Your task to perform on an android device: Open settings on Google Maps Image 0: 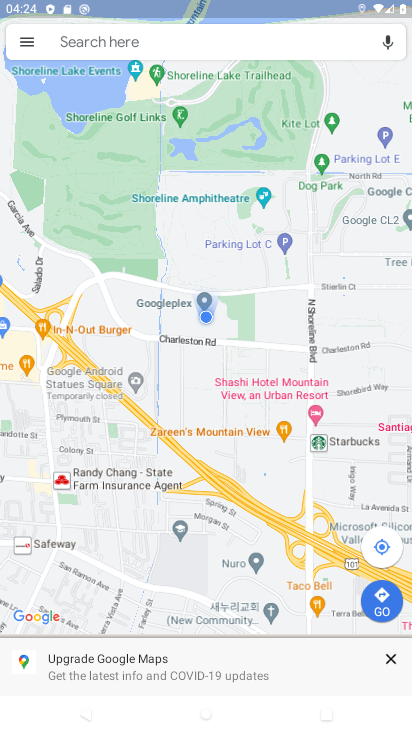
Step 0: press back button
Your task to perform on an android device: Open settings on Google Maps Image 1: 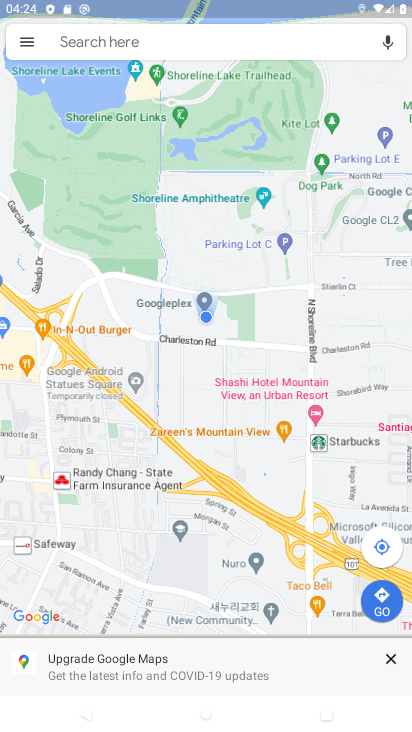
Step 1: press home button
Your task to perform on an android device: Open settings on Google Maps Image 2: 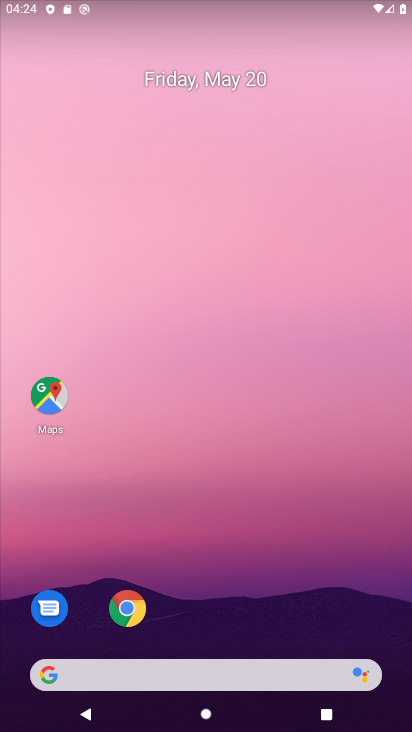
Step 2: drag from (209, 669) to (167, 79)
Your task to perform on an android device: Open settings on Google Maps Image 3: 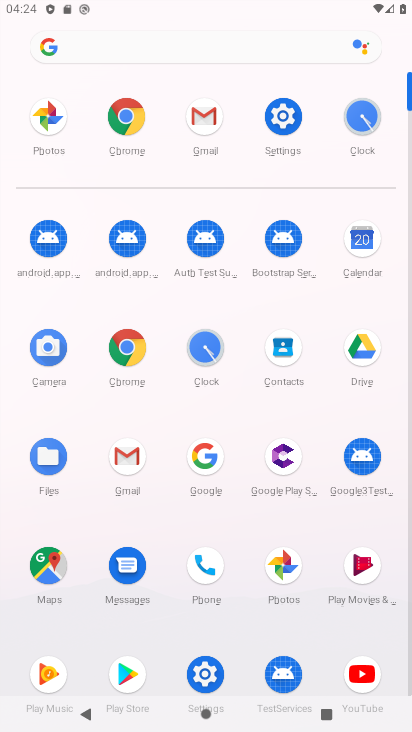
Step 3: click (41, 577)
Your task to perform on an android device: Open settings on Google Maps Image 4: 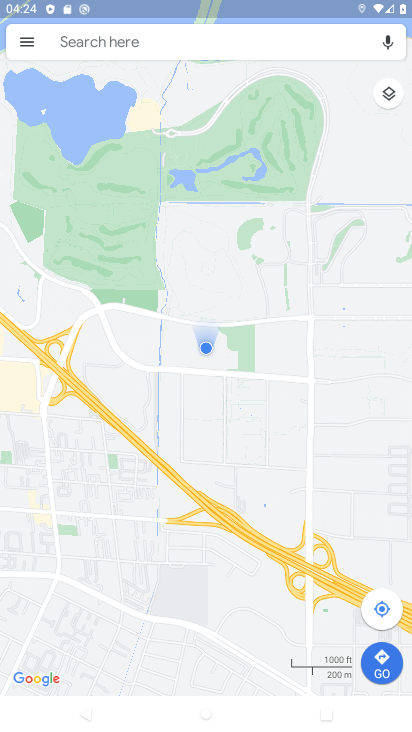
Step 4: drag from (21, 31) to (41, 197)
Your task to perform on an android device: Open settings on Google Maps Image 5: 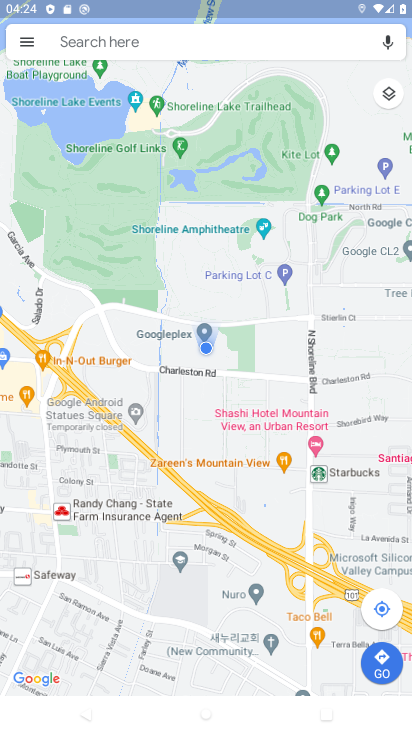
Step 5: click (16, 47)
Your task to perform on an android device: Open settings on Google Maps Image 6: 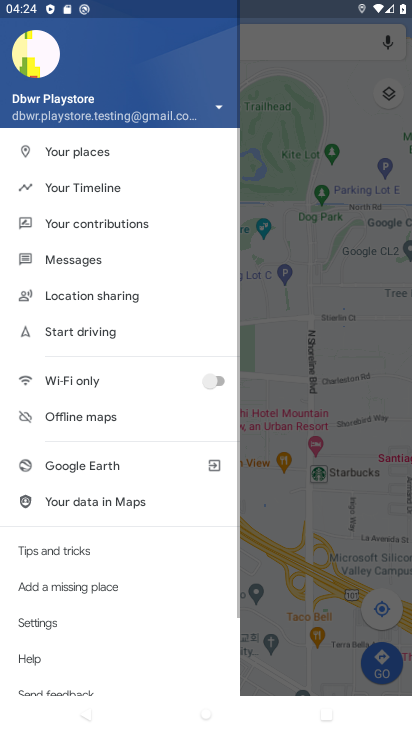
Step 6: click (50, 628)
Your task to perform on an android device: Open settings on Google Maps Image 7: 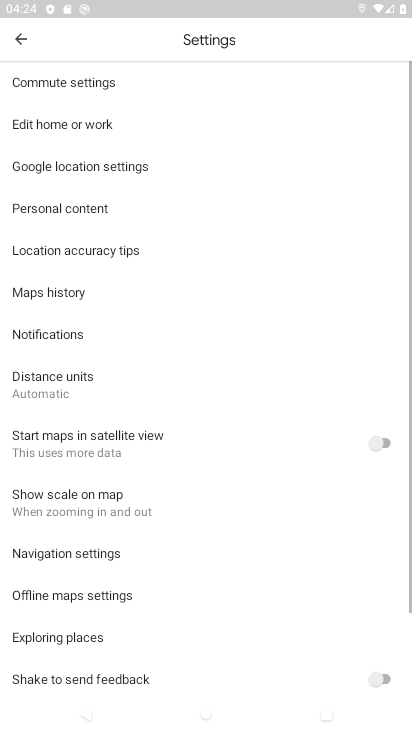
Step 7: task complete